Your task to perform on an android device: change the upload size in google photos Image 0: 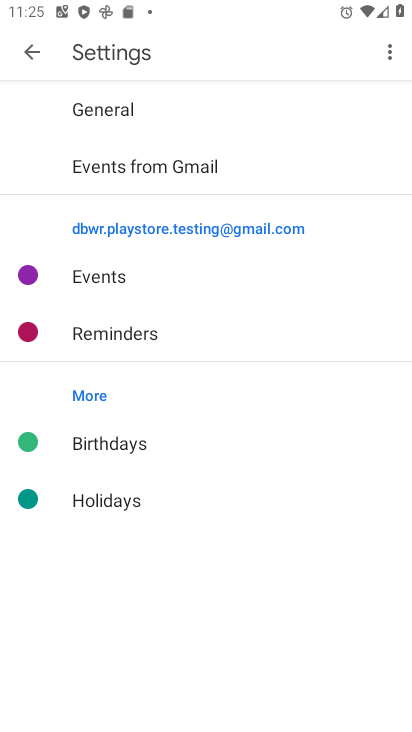
Step 0: press home button
Your task to perform on an android device: change the upload size in google photos Image 1: 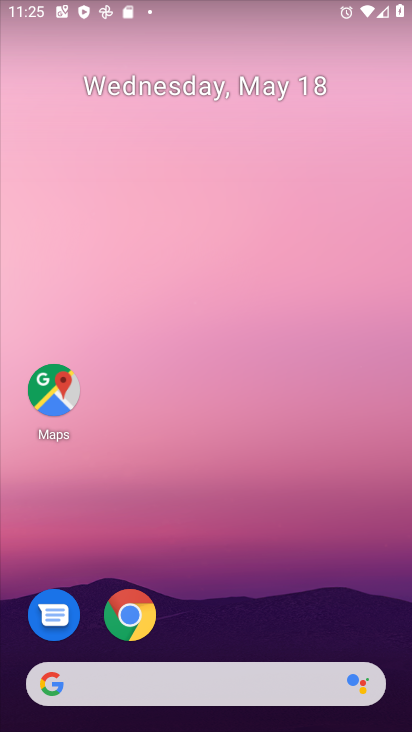
Step 1: drag from (209, 589) to (217, 166)
Your task to perform on an android device: change the upload size in google photos Image 2: 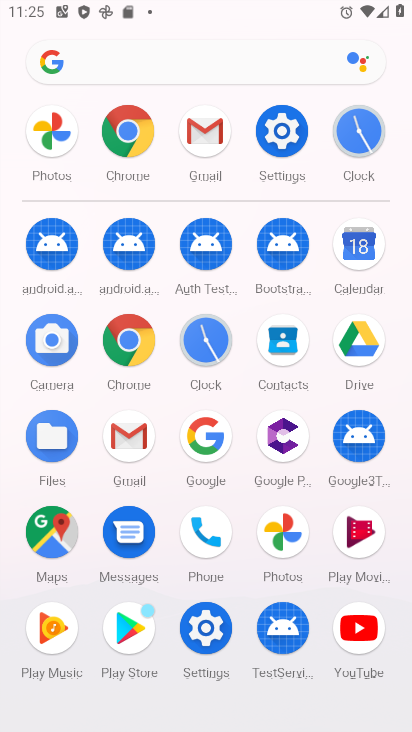
Step 2: click (286, 536)
Your task to perform on an android device: change the upload size in google photos Image 3: 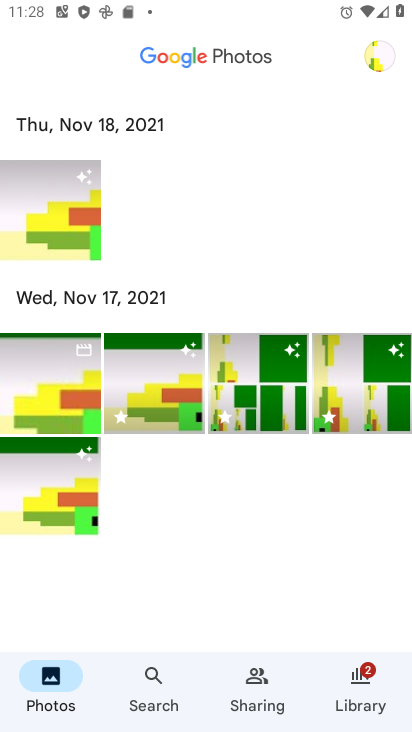
Step 3: click (381, 59)
Your task to perform on an android device: change the upload size in google photos Image 4: 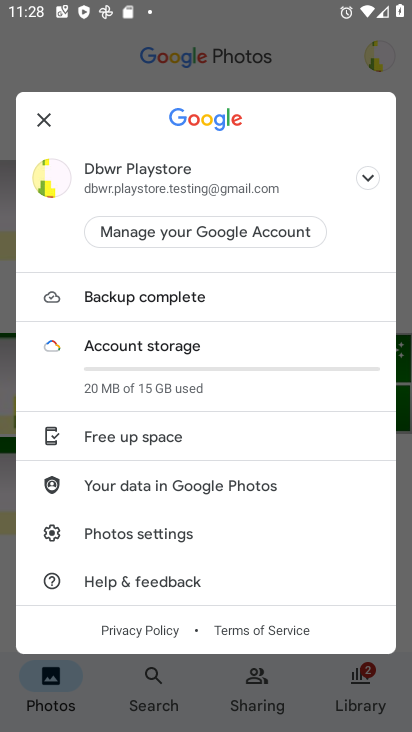
Step 4: click (130, 530)
Your task to perform on an android device: change the upload size in google photos Image 5: 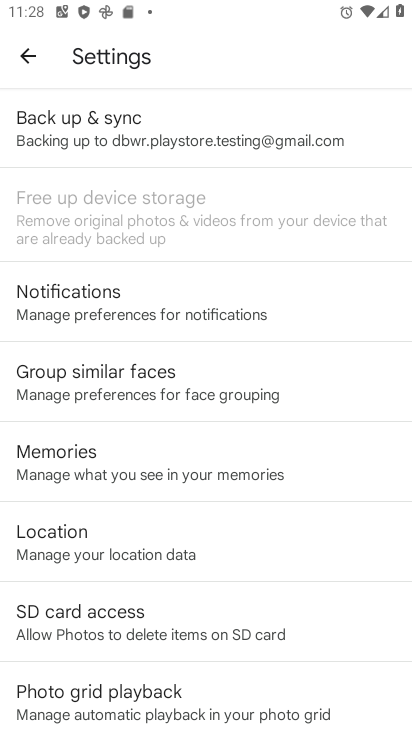
Step 5: click (75, 124)
Your task to perform on an android device: change the upload size in google photos Image 6: 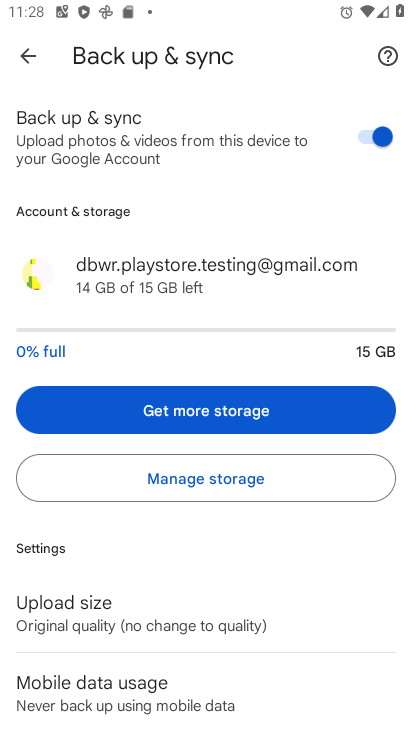
Step 6: click (67, 619)
Your task to perform on an android device: change the upload size in google photos Image 7: 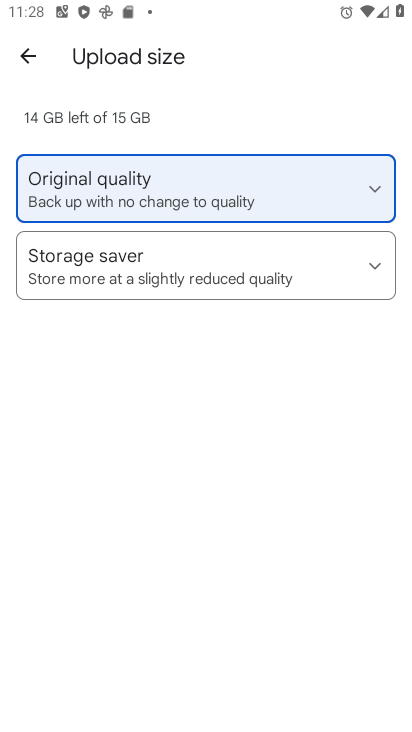
Step 7: click (82, 266)
Your task to perform on an android device: change the upload size in google photos Image 8: 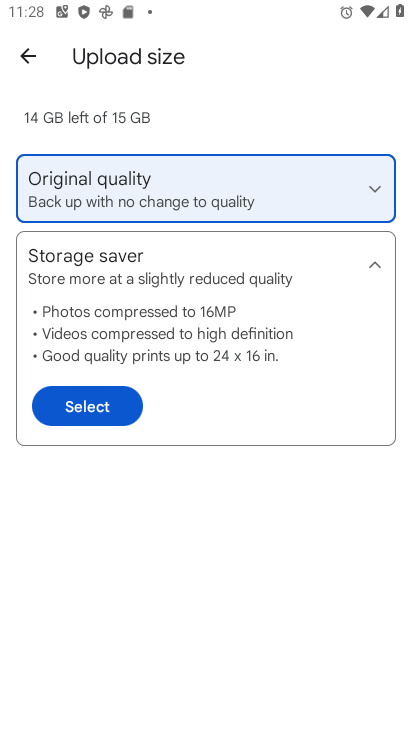
Step 8: click (94, 410)
Your task to perform on an android device: change the upload size in google photos Image 9: 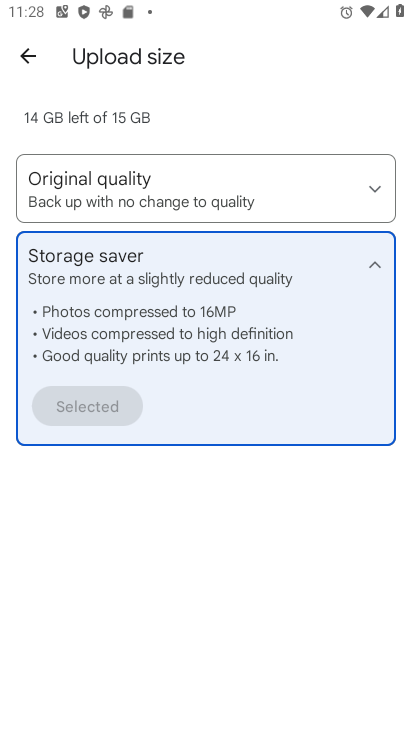
Step 9: task complete